Your task to perform on an android device: Go to network settings Image 0: 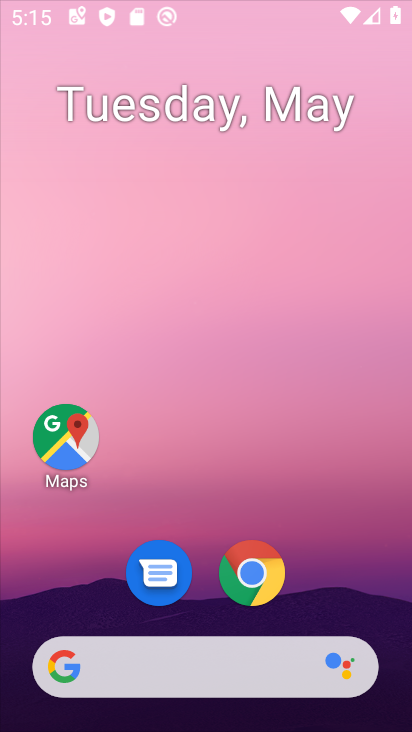
Step 0: drag from (185, 604) to (256, 87)
Your task to perform on an android device: Go to network settings Image 1: 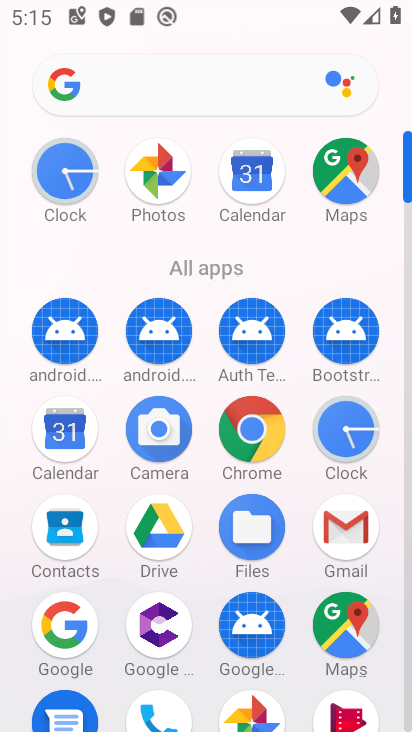
Step 1: drag from (181, 681) to (270, 160)
Your task to perform on an android device: Go to network settings Image 2: 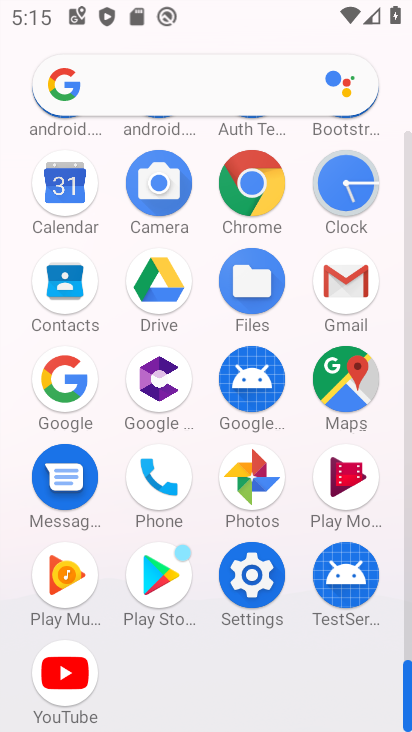
Step 2: click (246, 570)
Your task to perform on an android device: Go to network settings Image 3: 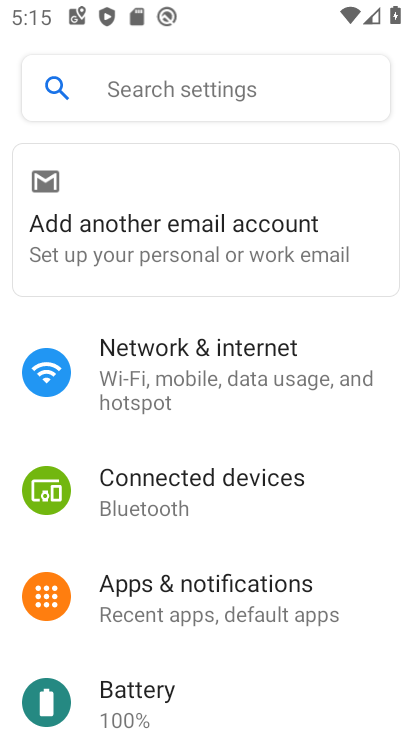
Step 3: click (156, 381)
Your task to perform on an android device: Go to network settings Image 4: 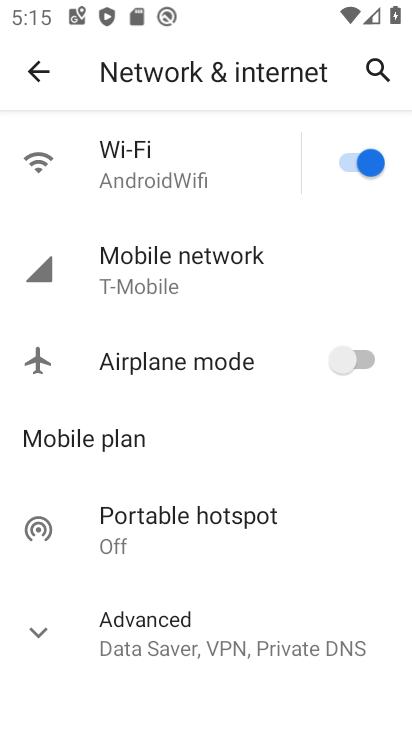
Step 4: task complete